Your task to perform on an android device: open a bookmark in the chrome app Image 0: 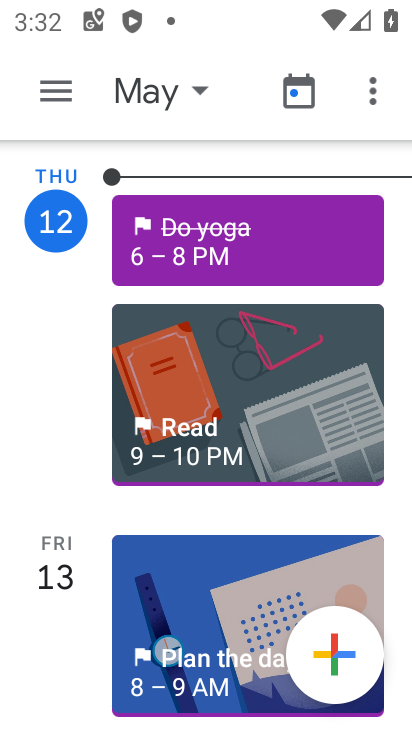
Step 0: press home button
Your task to perform on an android device: open a bookmark in the chrome app Image 1: 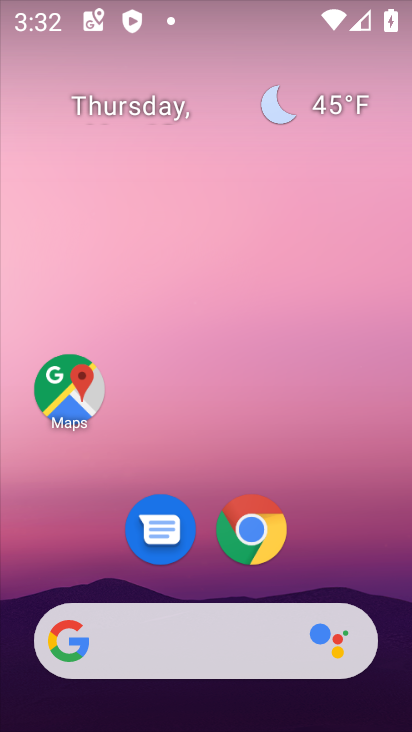
Step 1: drag from (326, 507) to (322, 243)
Your task to perform on an android device: open a bookmark in the chrome app Image 2: 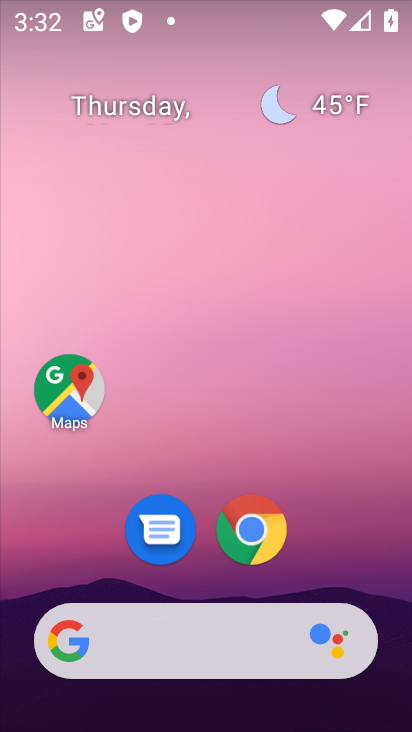
Step 2: drag from (370, 514) to (360, 1)
Your task to perform on an android device: open a bookmark in the chrome app Image 3: 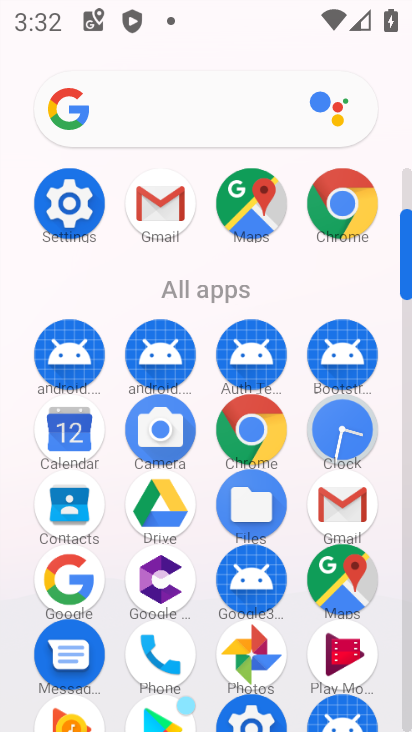
Step 3: click (347, 217)
Your task to perform on an android device: open a bookmark in the chrome app Image 4: 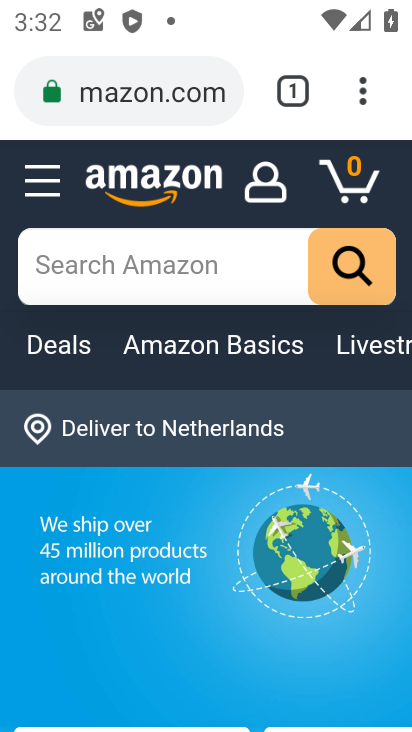
Step 4: task complete